Your task to perform on an android device: What is the news today? Image 0: 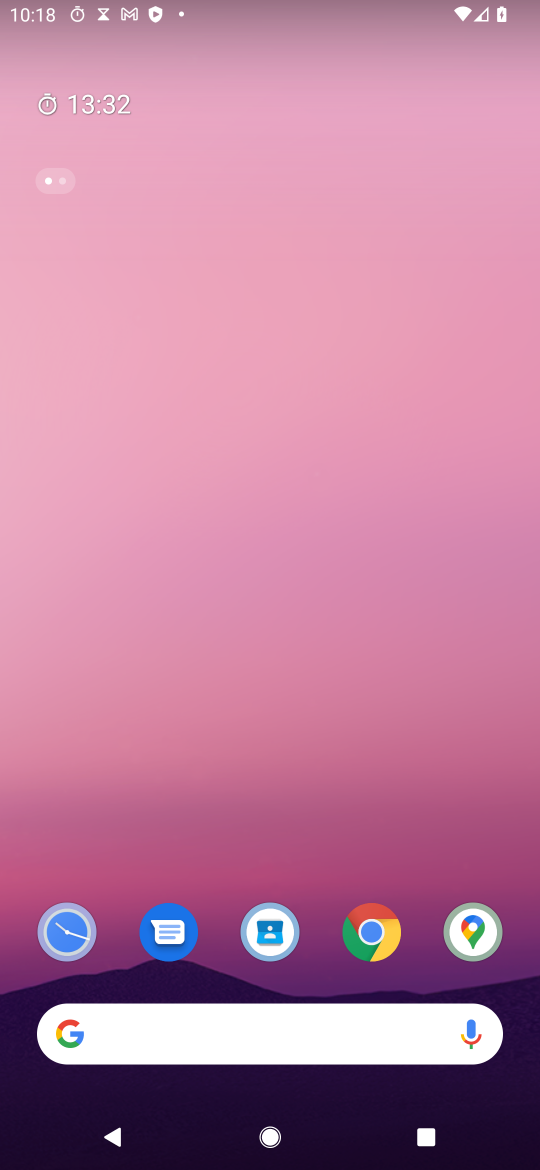
Step 0: drag from (347, 856) to (325, 76)
Your task to perform on an android device: What is the news today? Image 1: 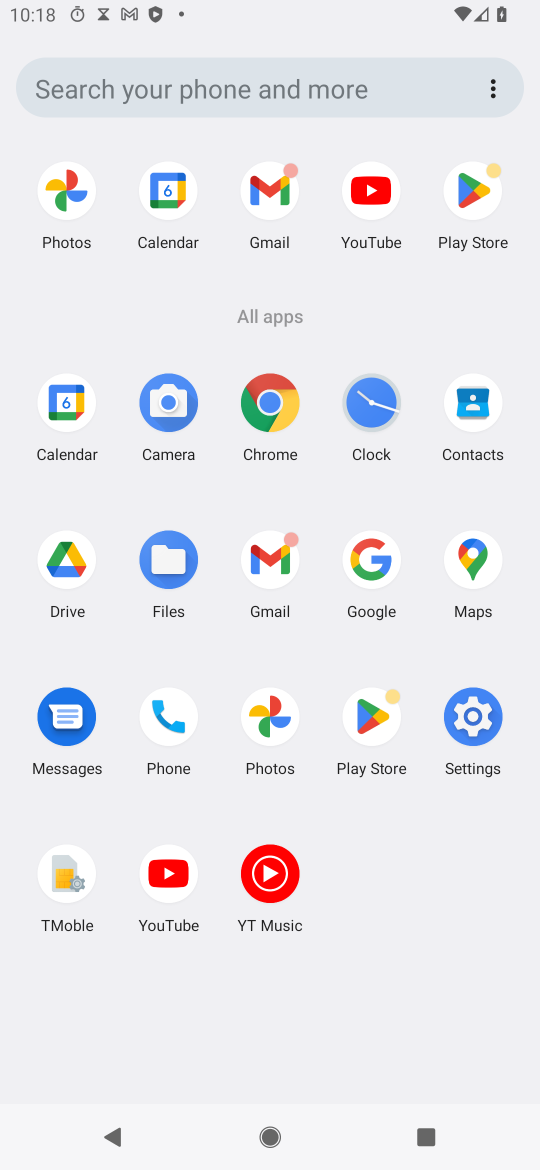
Step 1: click (266, 410)
Your task to perform on an android device: What is the news today? Image 2: 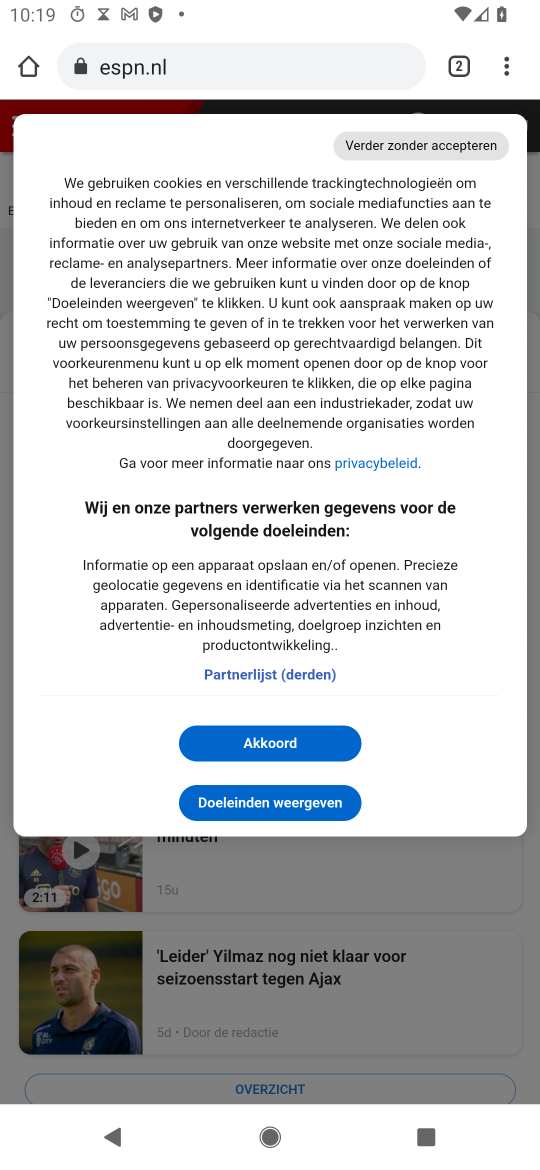
Step 2: click (241, 63)
Your task to perform on an android device: What is the news today? Image 3: 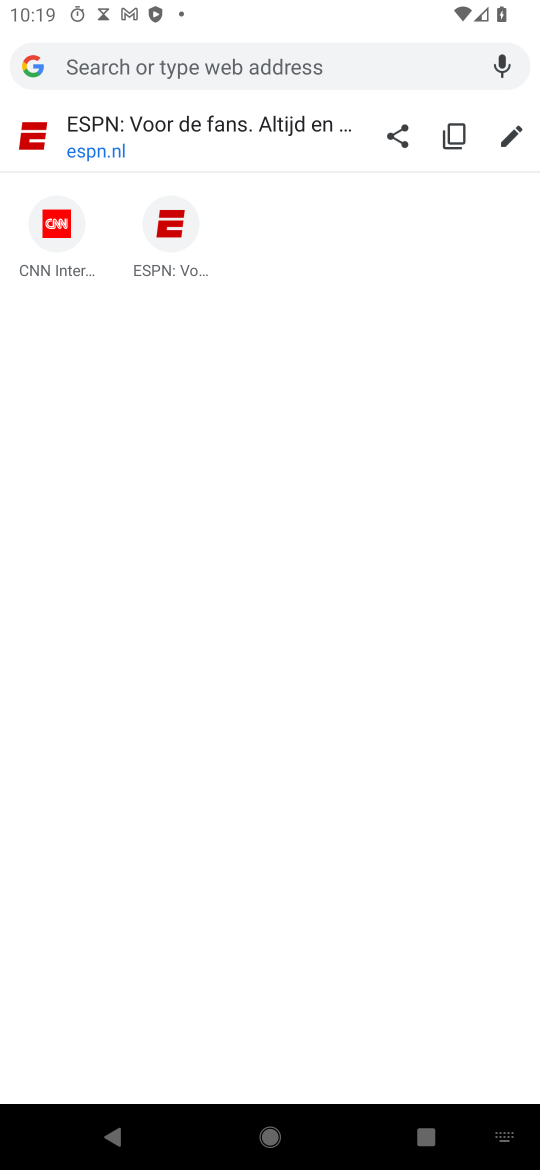
Step 3: type "What is the news today?"
Your task to perform on an android device: What is the news today? Image 4: 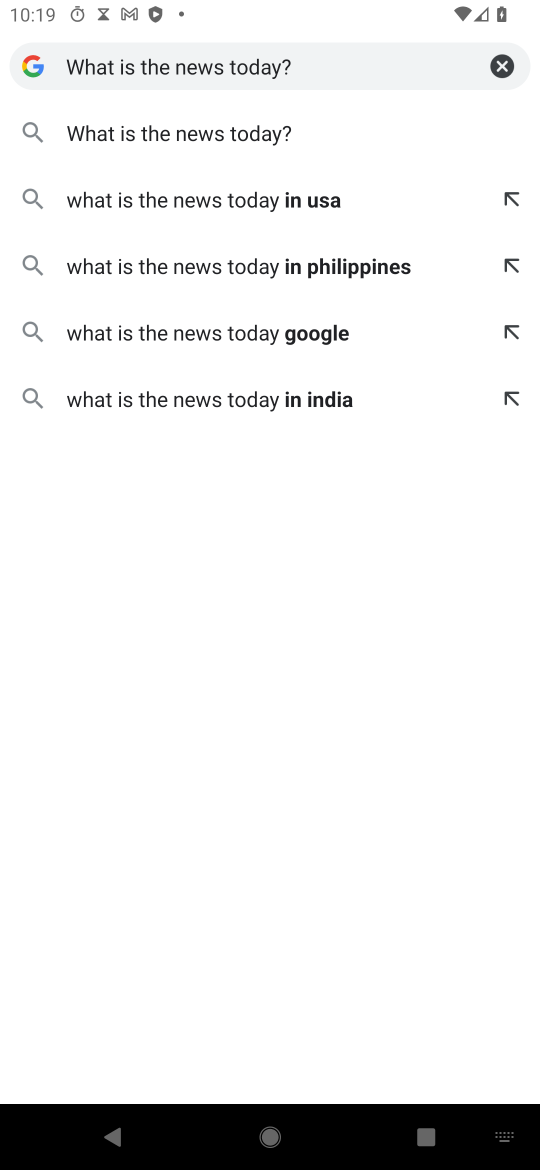
Step 4: click (248, 112)
Your task to perform on an android device: What is the news today? Image 5: 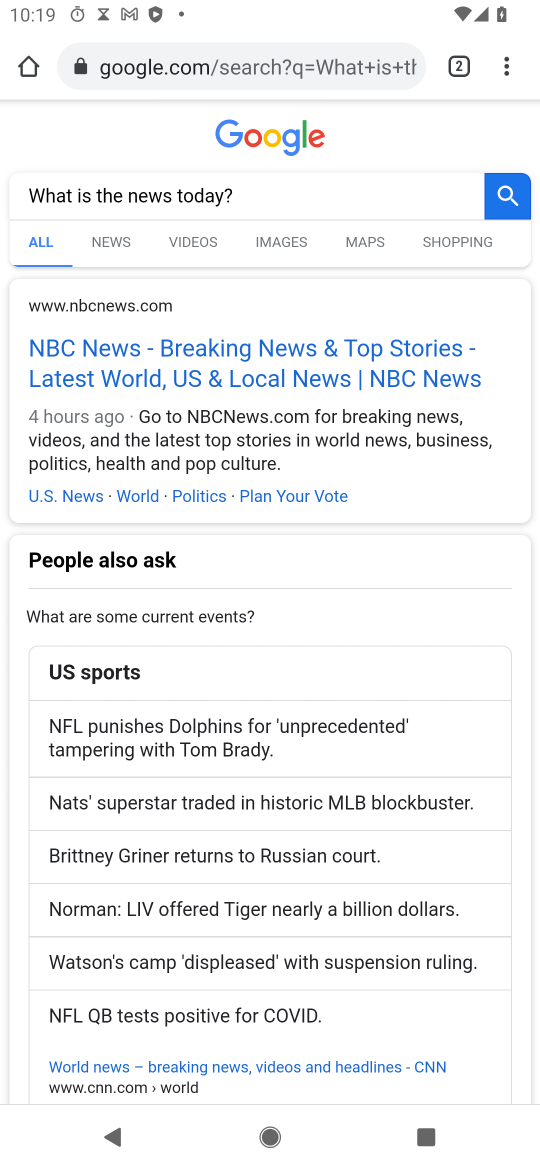
Step 5: click (439, 374)
Your task to perform on an android device: What is the news today? Image 6: 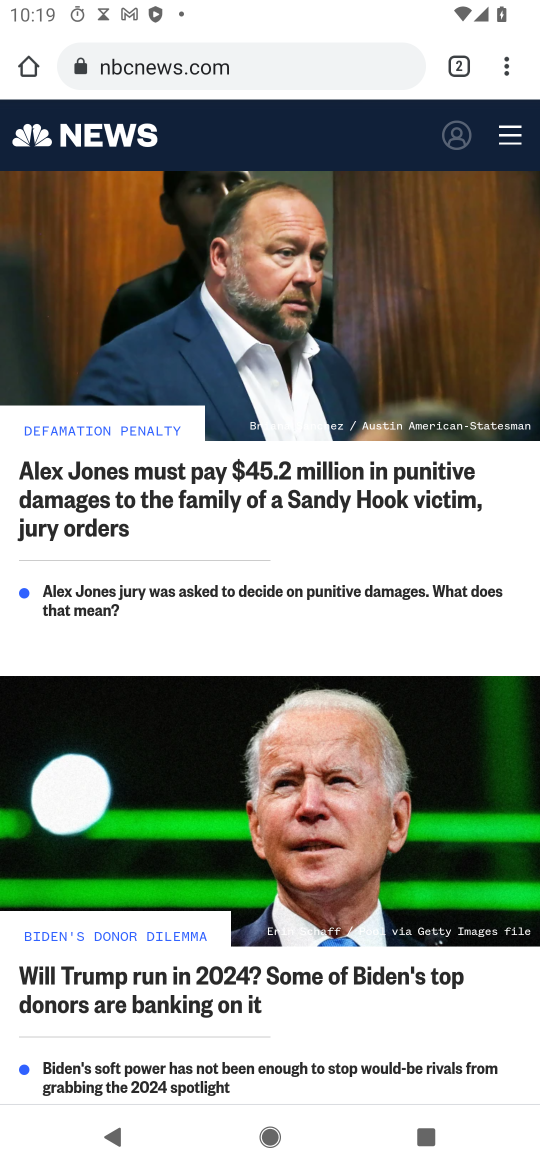
Step 6: task complete